Your task to perform on an android device: change the clock style Image 0: 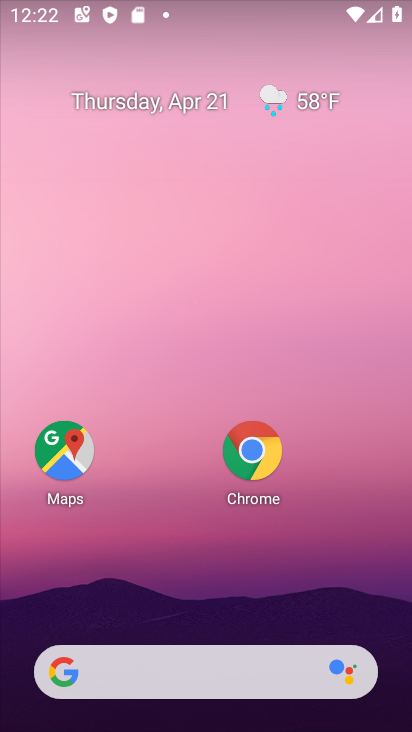
Step 0: drag from (150, 466) to (124, 223)
Your task to perform on an android device: change the clock style Image 1: 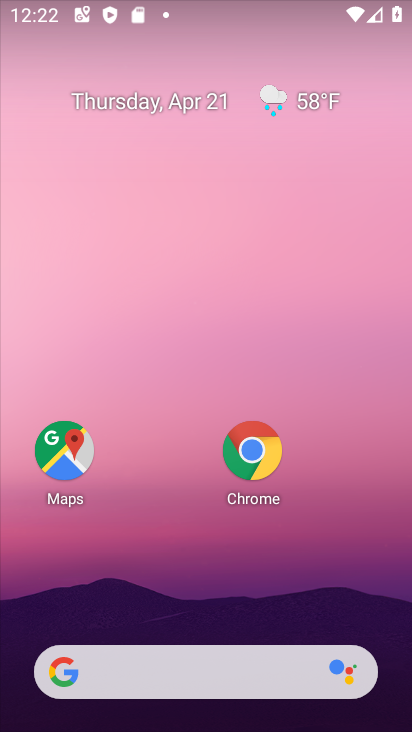
Step 1: drag from (148, 622) to (206, 92)
Your task to perform on an android device: change the clock style Image 2: 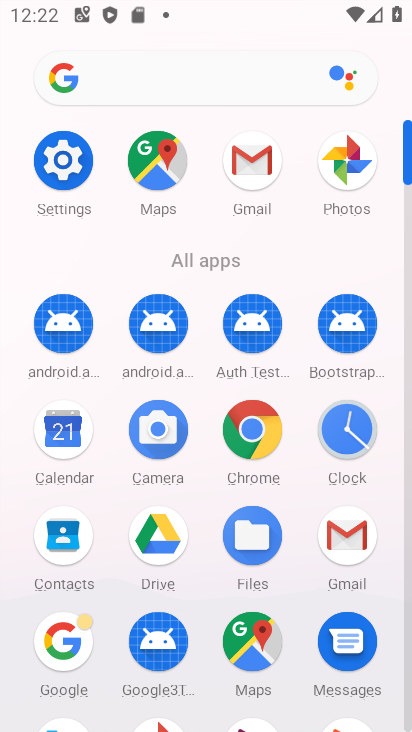
Step 2: click (359, 434)
Your task to perform on an android device: change the clock style Image 3: 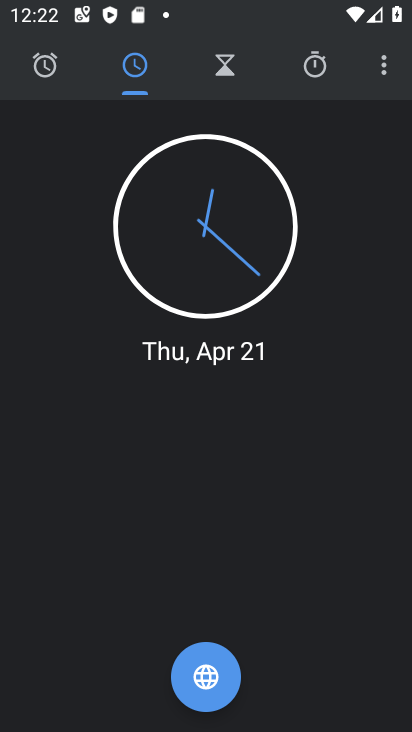
Step 3: click (382, 54)
Your task to perform on an android device: change the clock style Image 4: 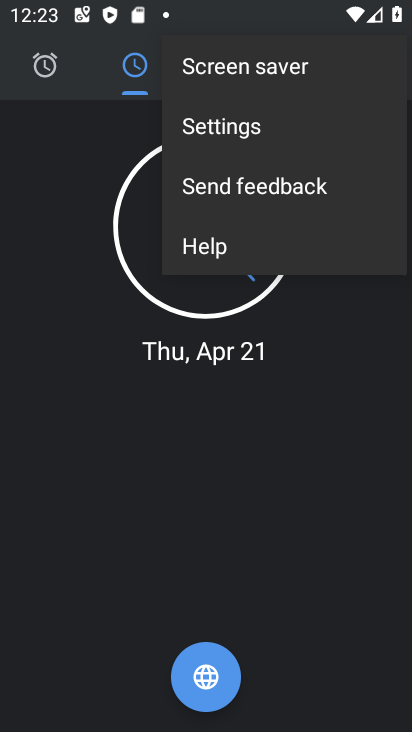
Step 4: click (352, 137)
Your task to perform on an android device: change the clock style Image 5: 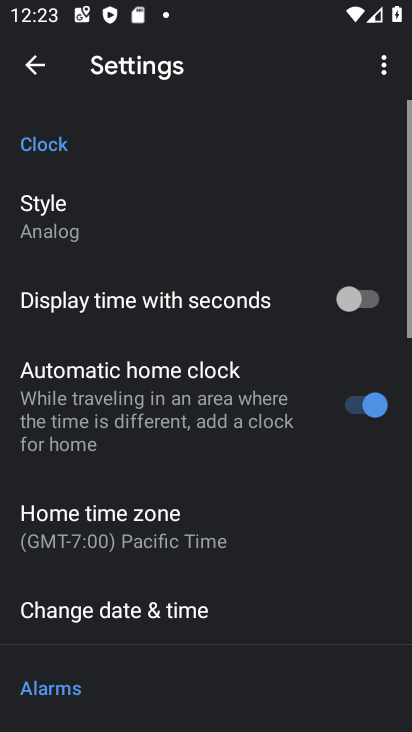
Step 5: click (190, 216)
Your task to perform on an android device: change the clock style Image 6: 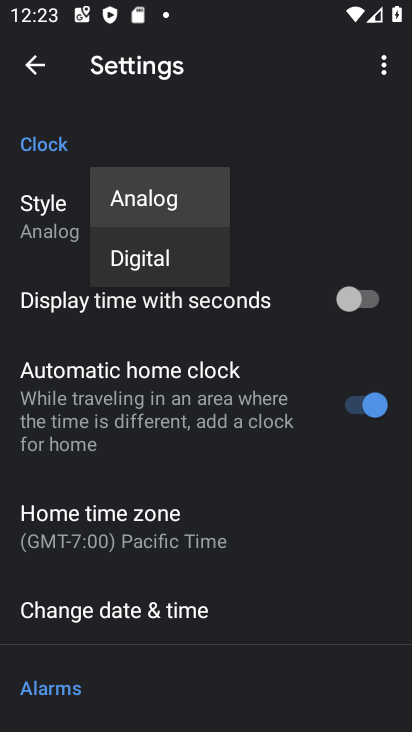
Step 6: click (201, 251)
Your task to perform on an android device: change the clock style Image 7: 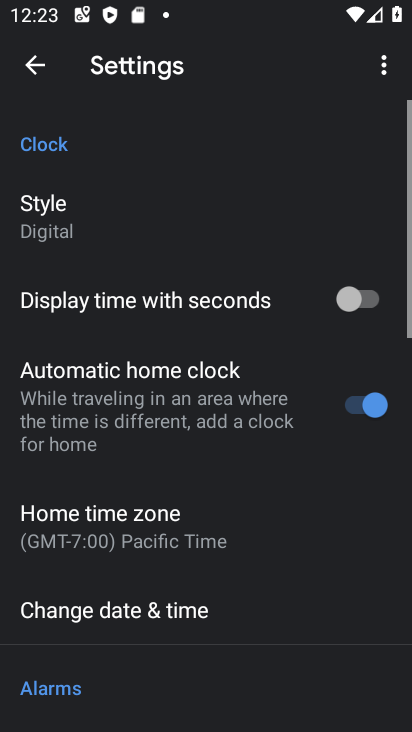
Step 7: task complete